Your task to perform on an android device: Go to Yahoo.com Image 0: 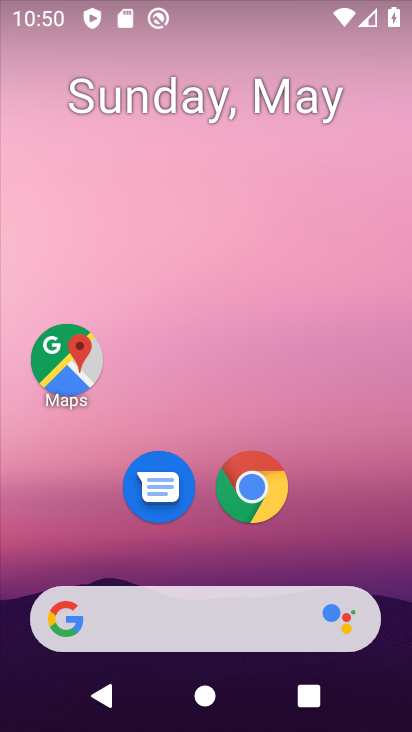
Step 0: click (248, 488)
Your task to perform on an android device: Go to Yahoo.com Image 1: 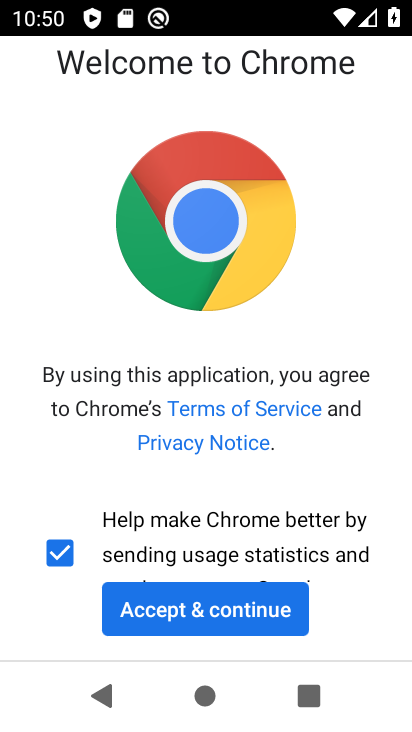
Step 1: click (155, 618)
Your task to perform on an android device: Go to Yahoo.com Image 2: 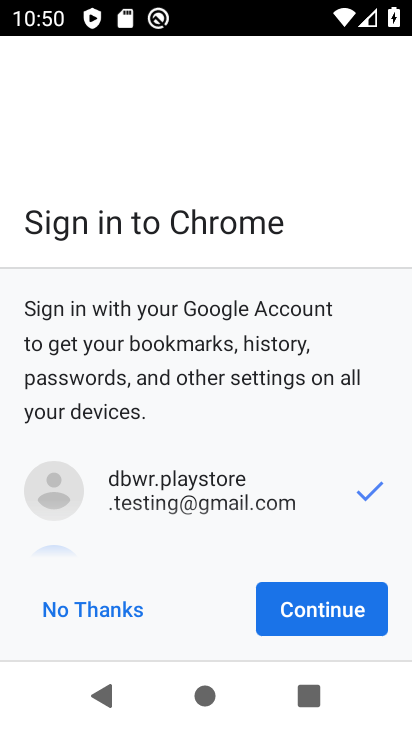
Step 2: click (361, 628)
Your task to perform on an android device: Go to Yahoo.com Image 3: 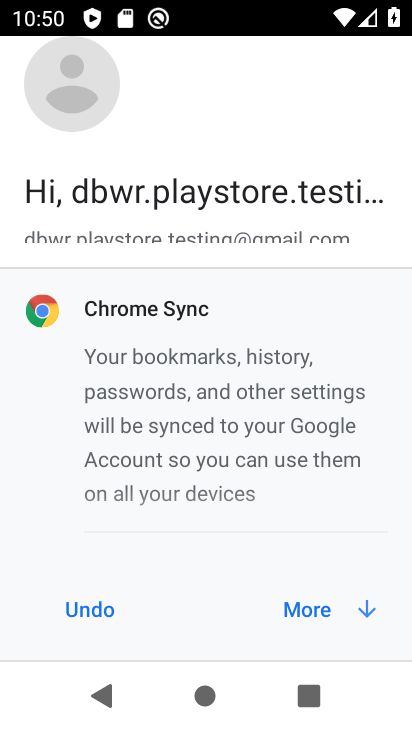
Step 3: click (361, 629)
Your task to perform on an android device: Go to Yahoo.com Image 4: 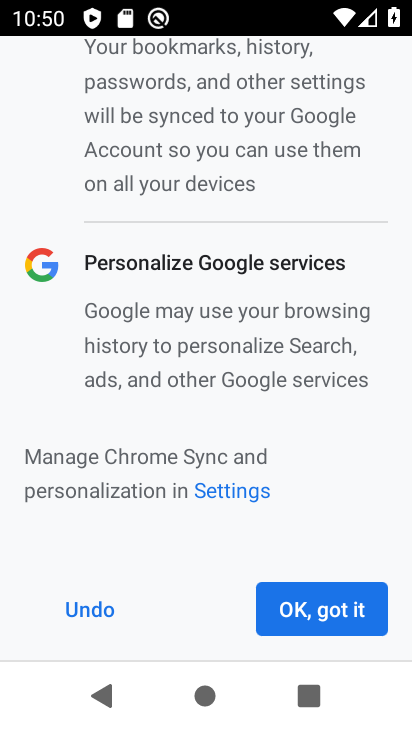
Step 4: click (293, 619)
Your task to perform on an android device: Go to Yahoo.com Image 5: 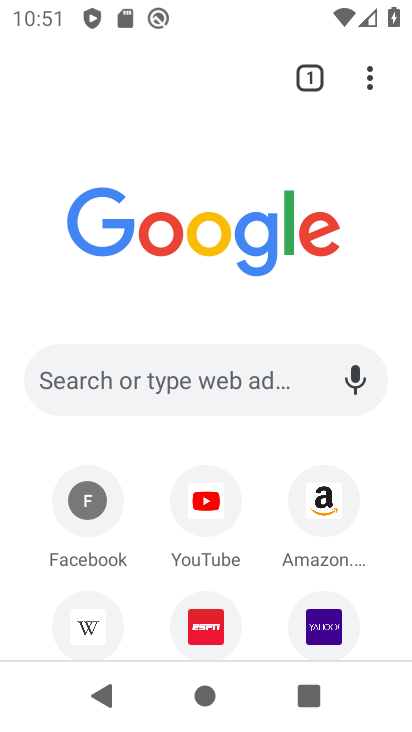
Step 5: click (237, 391)
Your task to perform on an android device: Go to Yahoo.com Image 6: 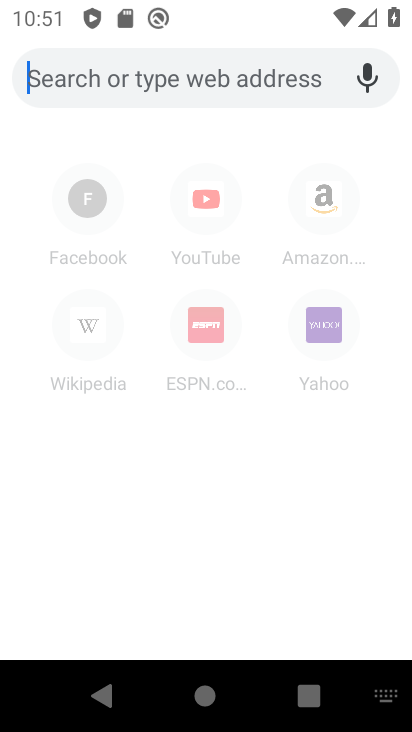
Step 6: type "yahoo.com"
Your task to perform on an android device: Go to Yahoo.com Image 7: 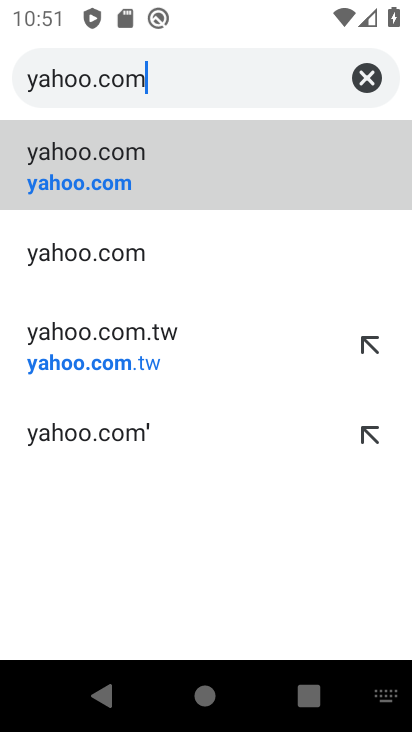
Step 7: click (90, 152)
Your task to perform on an android device: Go to Yahoo.com Image 8: 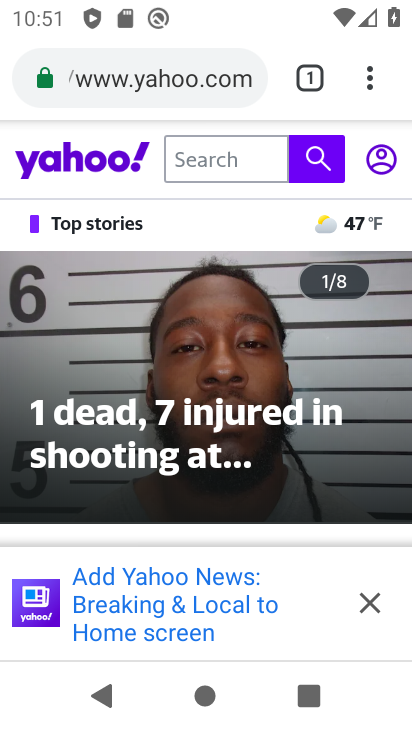
Step 8: task complete